Your task to perform on an android device: install app "LiveIn - Share Your Moment" Image 0: 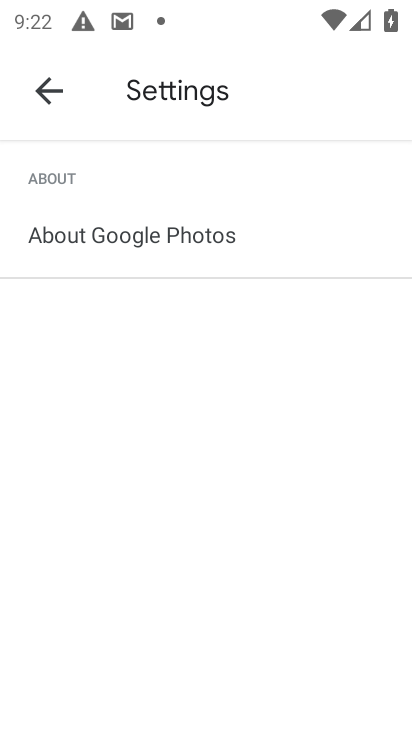
Step 0: press home button
Your task to perform on an android device: install app "LiveIn - Share Your Moment" Image 1: 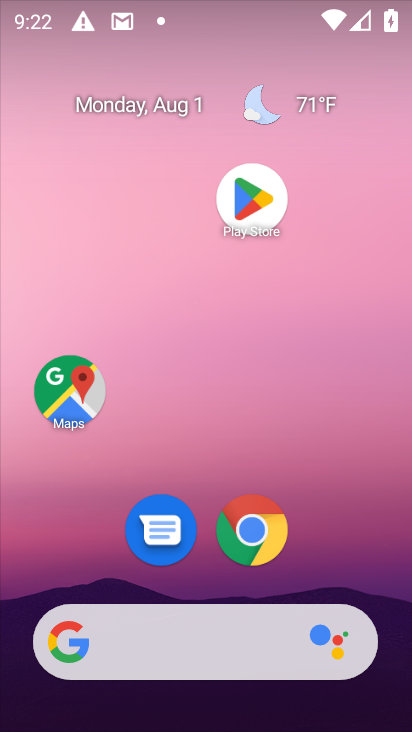
Step 1: click (235, 220)
Your task to perform on an android device: install app "LiveIn - Share Your Moment" Image 2: 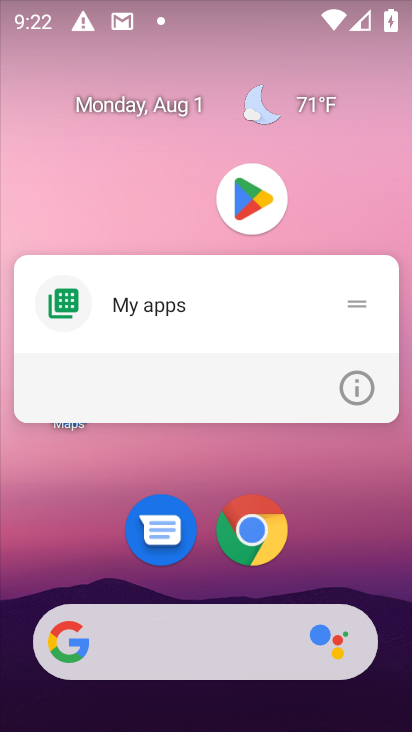
Step 2: click (254, 205)
Your task to perform on an android device: install app "LiveIn - Share Your Moment" Image 3: 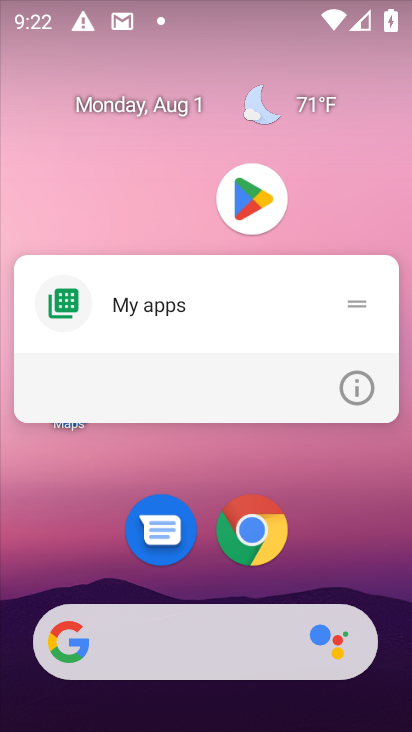
Step 3: click (254, 205)
Your task to perform on an android device: install app "LiveIn - Share Your Moment" Image 4: 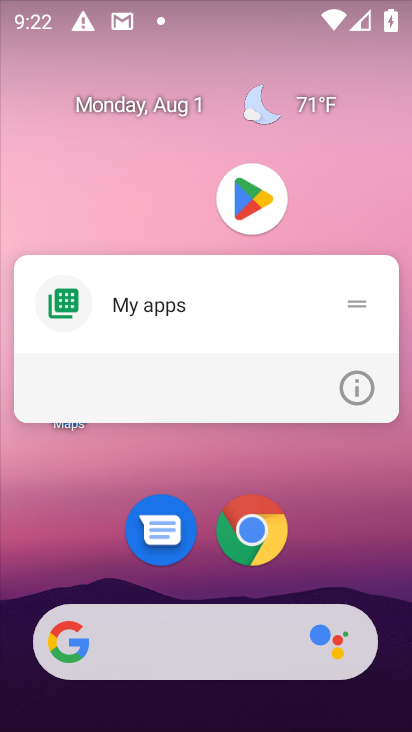
Step 4: click (232, 191)
Your task to perform on an android device: install app "LiveIn - Share Your Moment" Image 5: 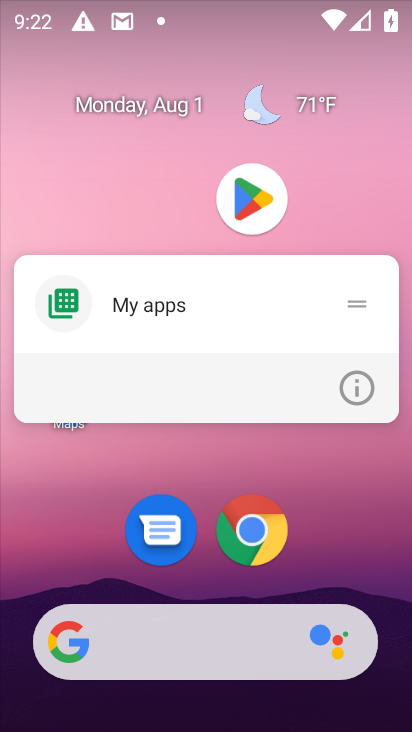
Step 5: click (286, 181)
Your task to perform on an android device: install app "LiveIn - Share Your Moment" Image 6: 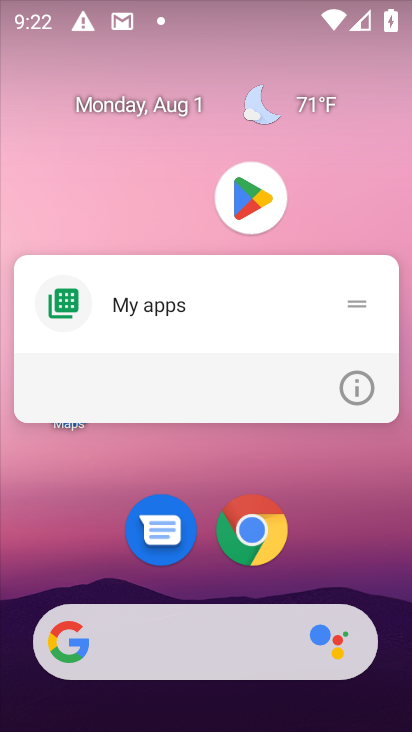
Step 6: click (287, 225)
Your task to perform on an android device: install app "LiveIn - Share Your Moment" Image 7: 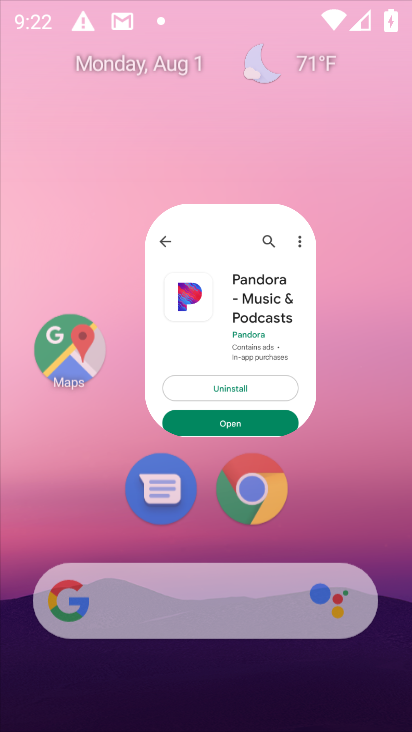
Step 7: click (199, 225)
Your task to perform on an android device: install app "LiveIn - Share Your Moment" Image 8: 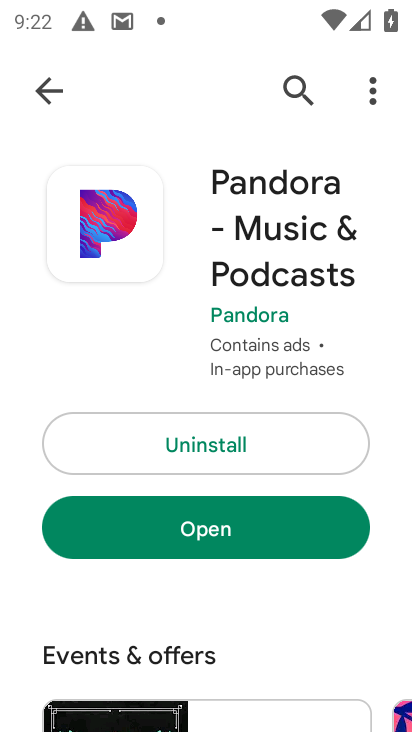
Step 8: click (267, 107)
Your task to perform on an android device: install app "LiveIn - Share Your Moment" Image 9: 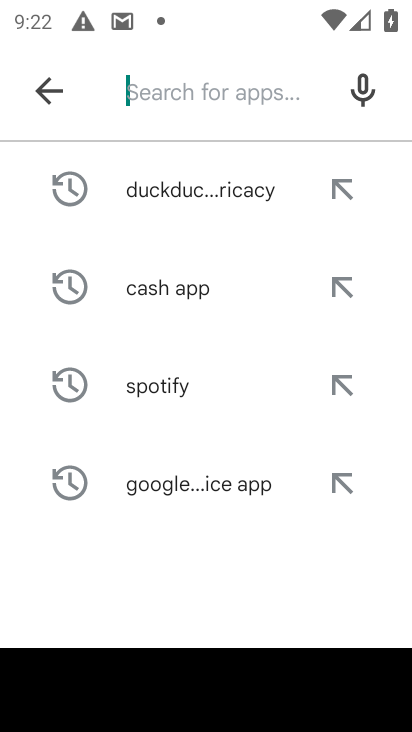
Step 9: type "livein share "
Your task to perform on an android device: install app "LiveIn - Share Your Moment" Image 10: 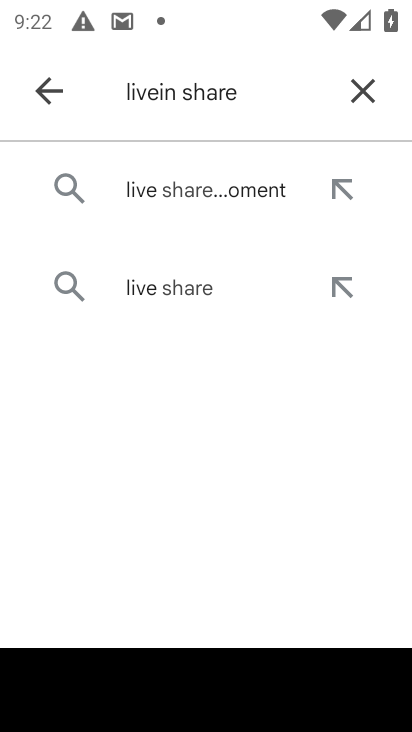
Step 10: click (286, 201)
Your task to perform on an android device: install app "LiveIn - Share Your Moment" Image 11: 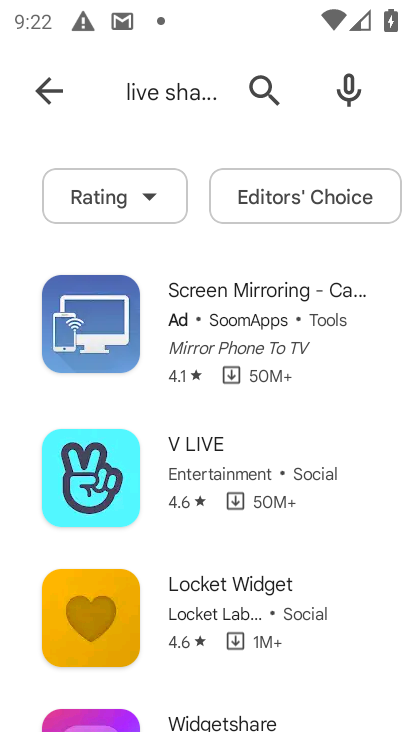
Step 11: task complete